Your task to perform on an android device: Open calendar and show me the fourth week of next month Image 0: 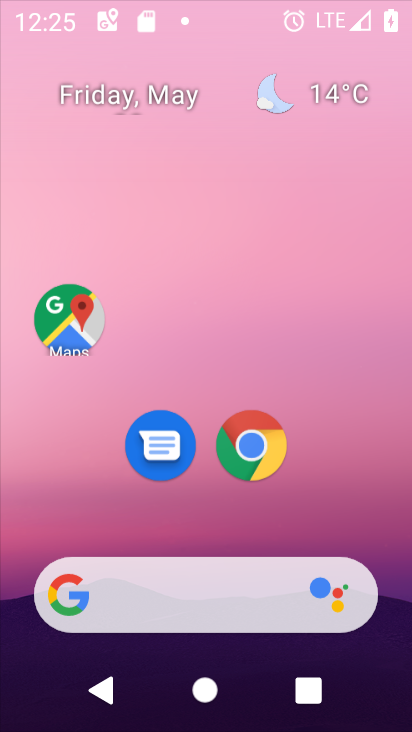
Step 0: drag from (231, 515) to (338, 71)
Your task to perform on an android device: Open calendar and show me the fourth week of next month Image 1: 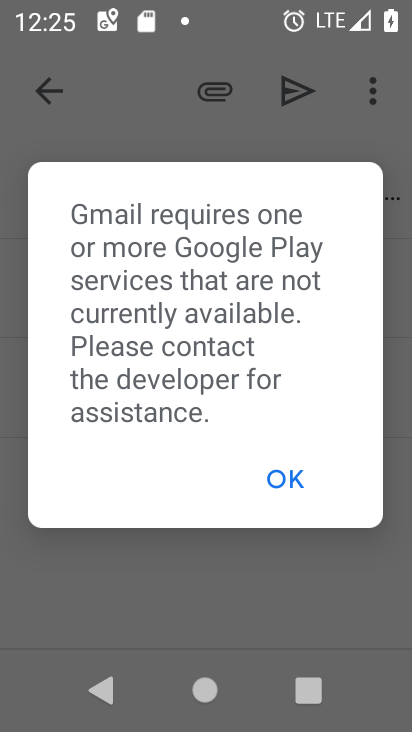
Step 1: press home button
Your task to perform on an android device: Open calendar and show me the fourth week of next month Image 2: 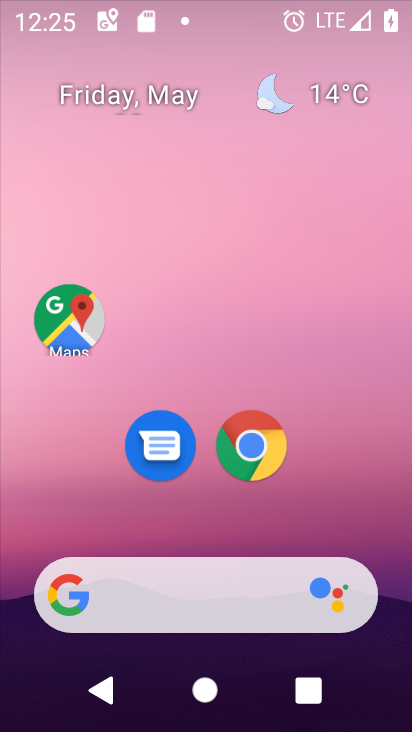
Step 2: drag from (266, 477) to (242, 116)
Your task to perform on an android device: Open calendar and show me the fourth week of next month Image 3: 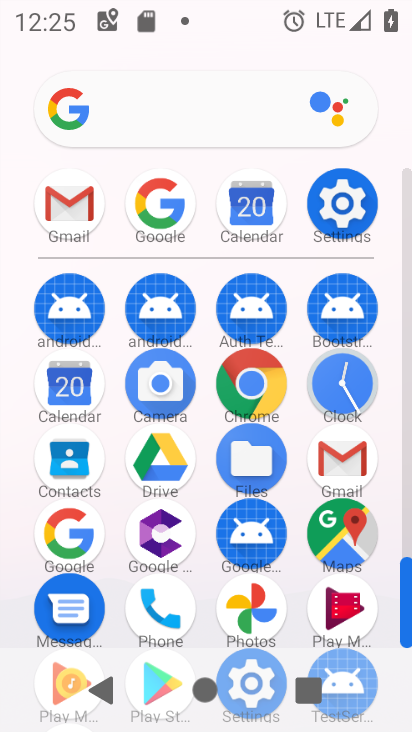
Step 3: click (63, 397)
Your task to perform on an android device: Open calendar and show me the fourth week of next month Image 4: 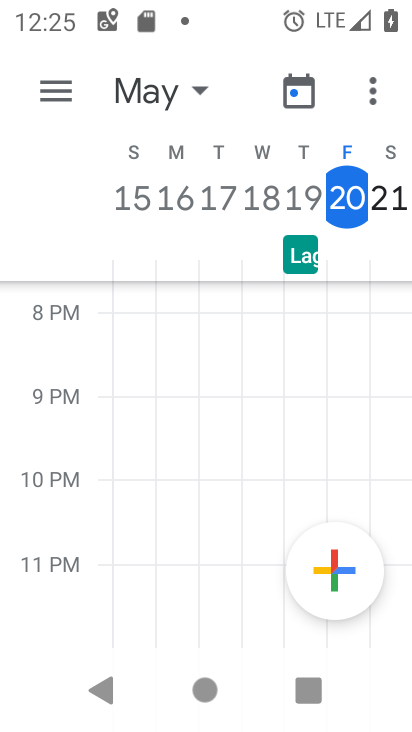
Step 4: task complete